Your task to perform on an android device: empty trash in the gmail app Image 0: 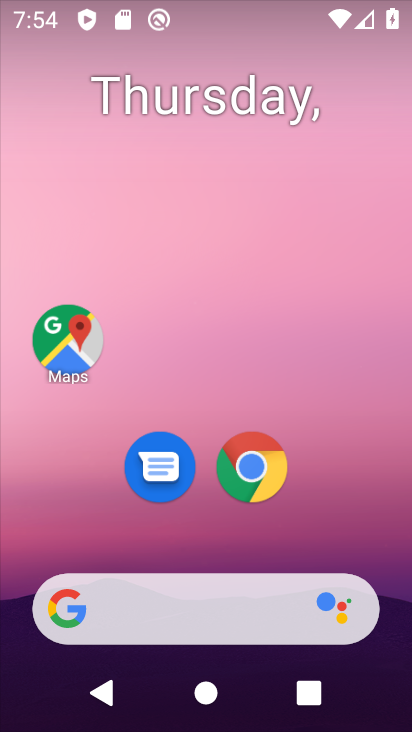
Step 0: drag from (170, 482) to (278, 95)
Your task to perform on an android device: empty trash in the gmail app Image 1: 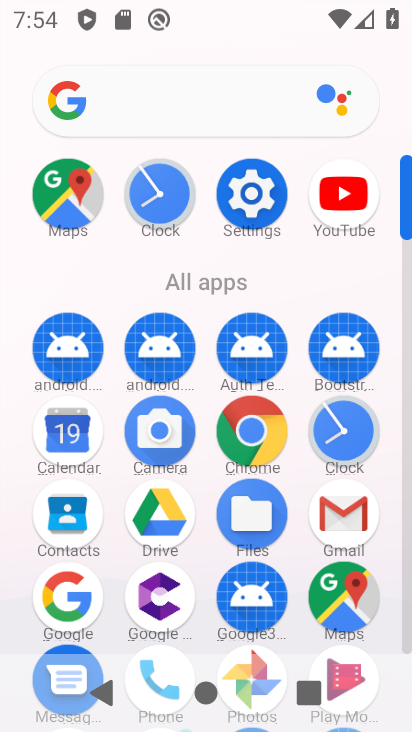
Step 1: click (329, 523)
Your task to perform on an android device: empty trash in the gmail app Image 2: 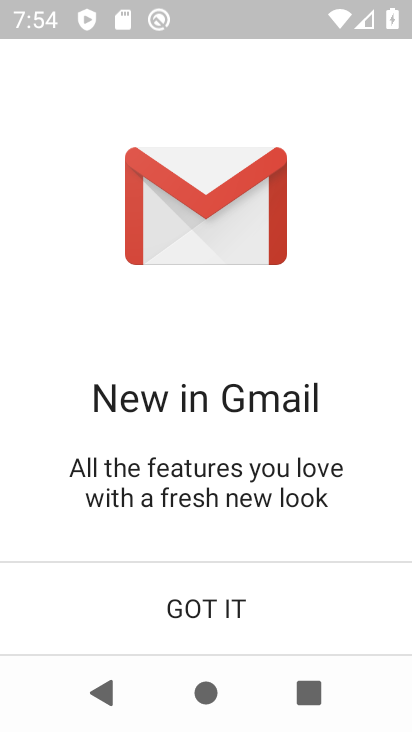
Step 2: click (189, 605)
Your task to perform on an android device: empty trash in the gmail app Image 3: 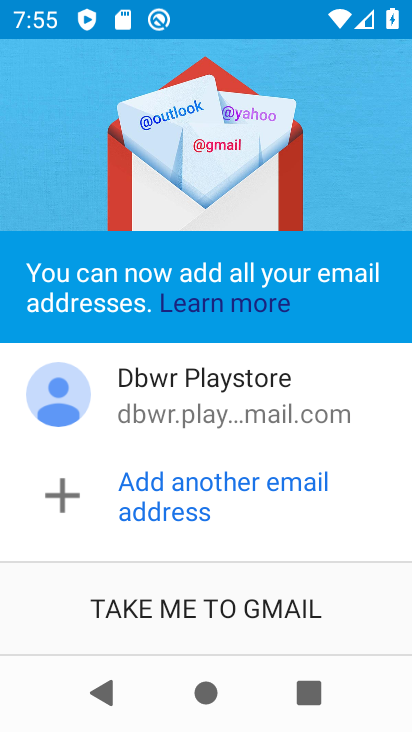
Step 3: click (256, 606)
Your task to perform on an android device: empty trash in the gmail app Image 4: 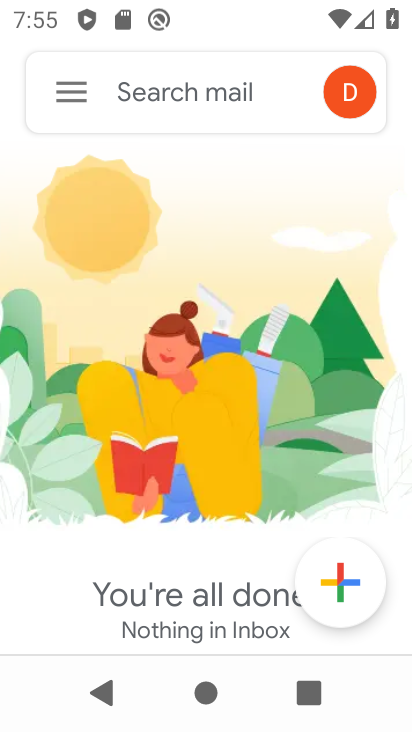
Step 4: click (66, 93)
Your task to perform on an android device: empty trash in the gmail app Image 5: 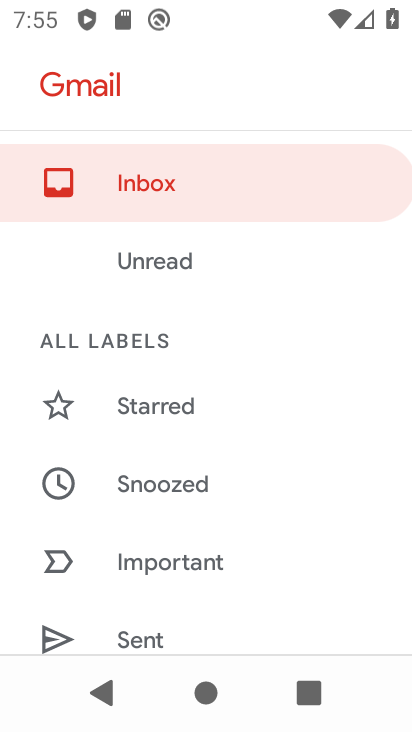
Step 5: drag from (208, 603) to (317, 233)
Your task to perform on an android device: empty trash in the gmail app Image 6: 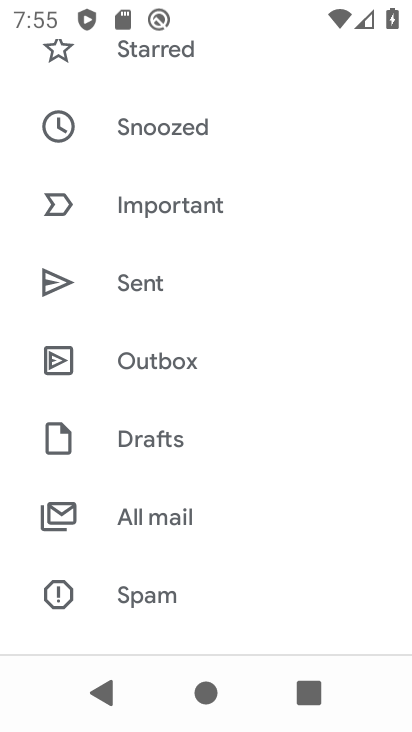
Step 6: drag from (161, 550) to (225, 125)
Your task to perform on an android device: empty trash in the gmail app Image 7: 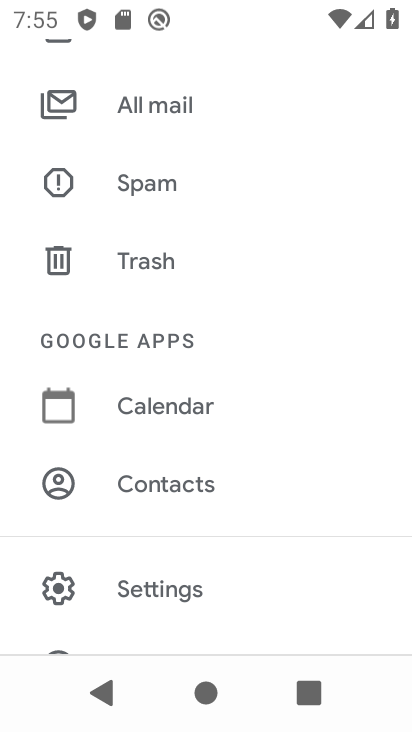
Step 7: click (155, 257)
Your task to perform on an android device: empty trash in the gmail app Image 8: 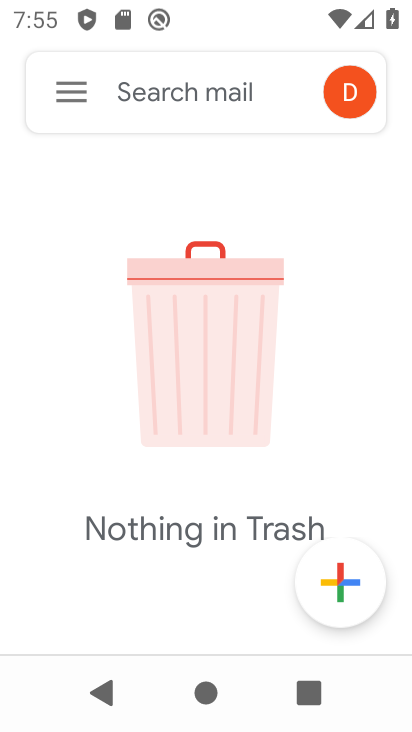
Step 8: task complete